Your task to perform on an android device: Open network settings Image 0: 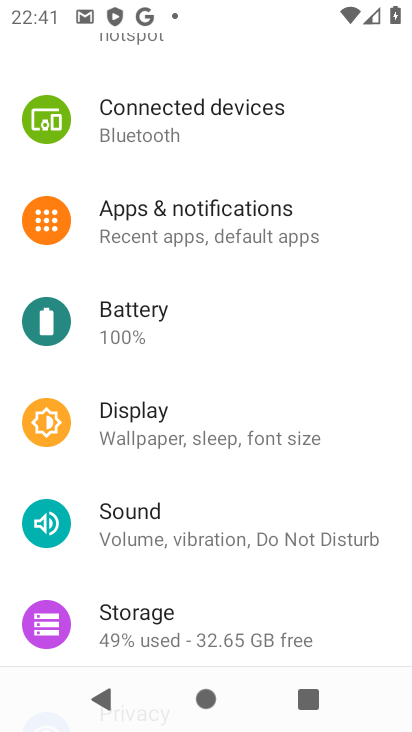
Step 0: drag from (299, 362) to (315, 480)
Your task to perform on an android device: Open network settings Image 1: 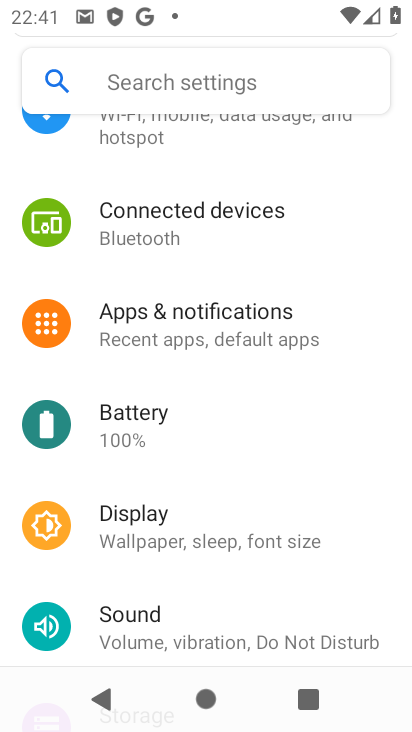
Step 1: drag from (344, 300) to (362, 445)
Your task to perform on an android device: Open network settings Image 2: 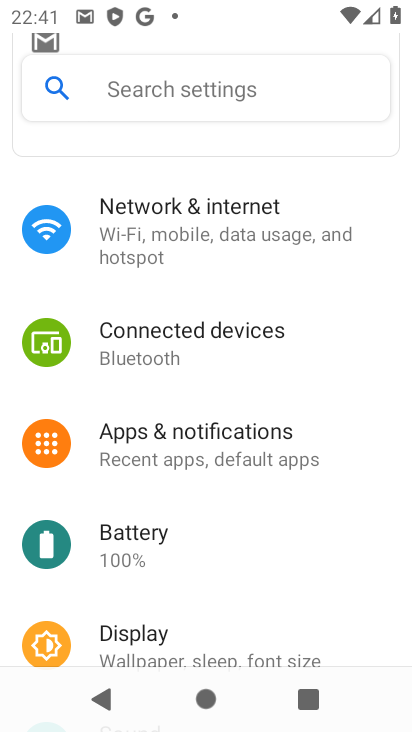
Step 2: drag from (354, 394) to (362, 486)
Your task to perform on an android device: Open network settings Image 3: 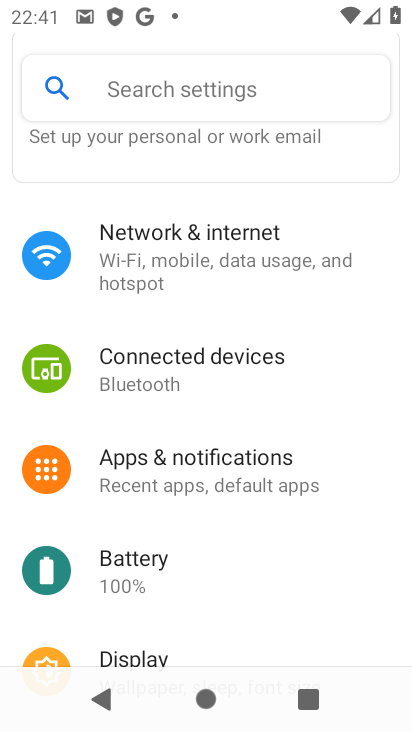
Step 3: drag from (358, 287) to (359, 409)
Your task to perform on an android device: Open network settings Image 4: 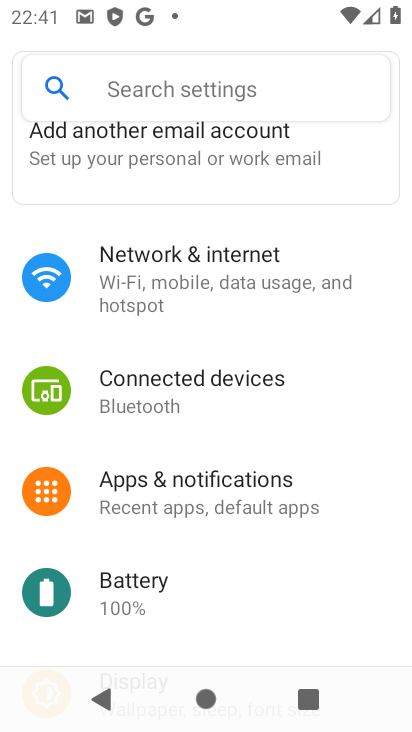
Step 4: click (290, 248)
Your task to perform on an android device: Open network settings Image 5: 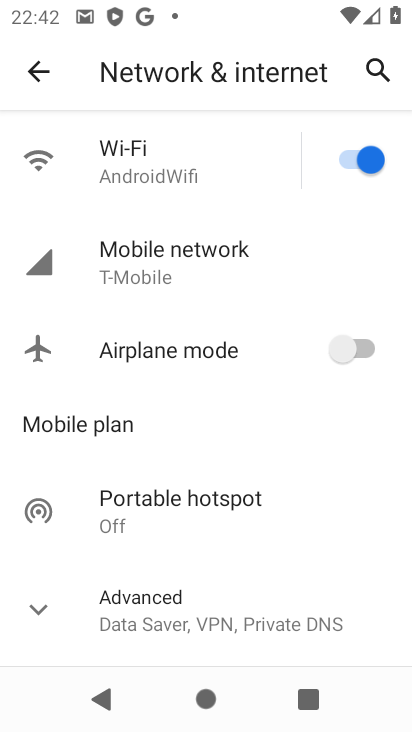
Step 5: click (197, 252)
Your task to perform on an android device: Open network settings Image 6: 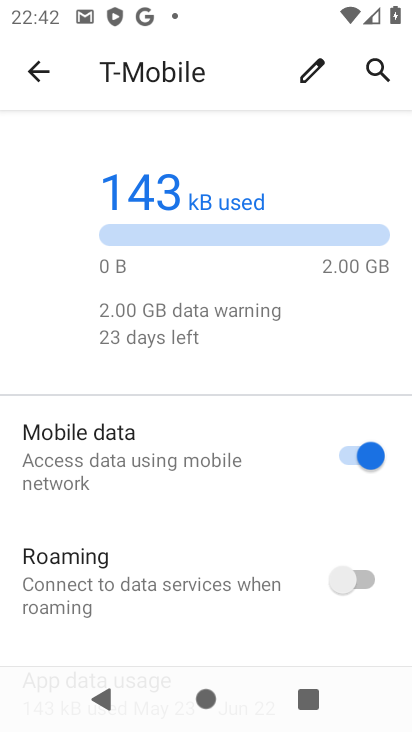
Step 6: drag from (273, 596) to (274, 396)
Your task to perform on an android device: Open network settings Image 7: 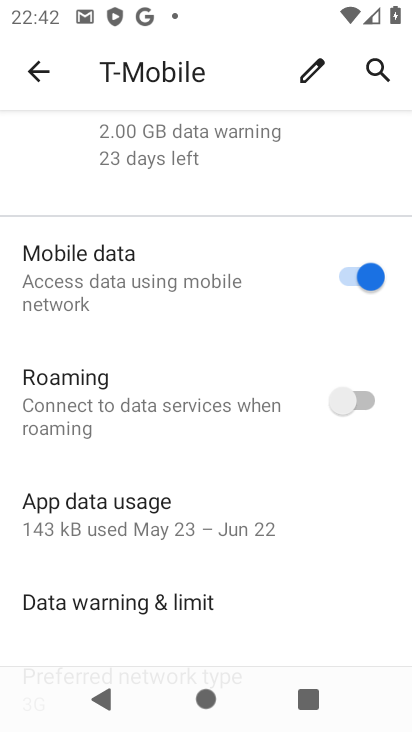
Step 7: drag from (252, 559) to (250, 244)
Your task to perform on an android device: Open network settings Image 8: 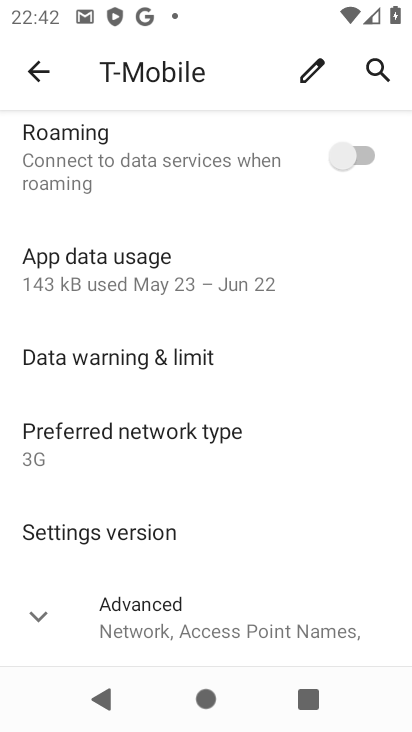
Step 8: click (218, 610)
Your task to perform on an android device: Open network settings Image 9: 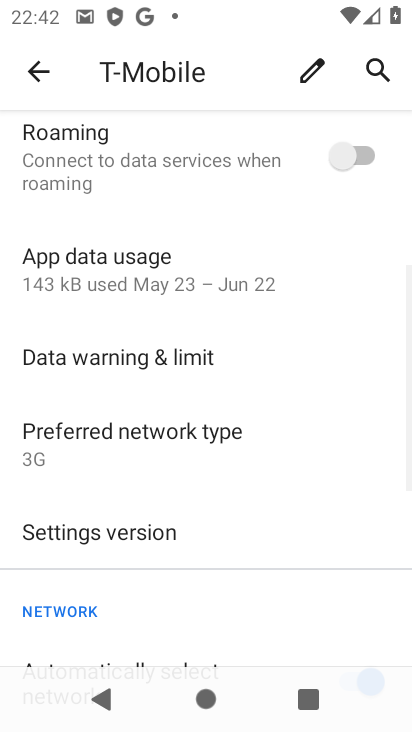
Step 9: task complete